Your task to perform on an android device: turn on notifications settings in the gmail app Image 0: 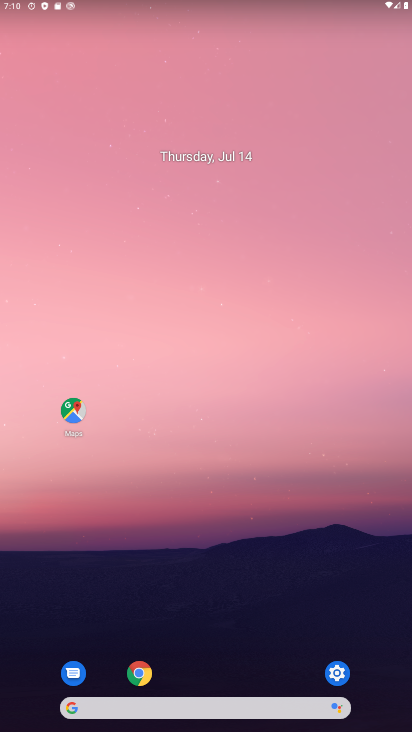
Step 0: press home button
Your task to perform on an android device: turn on notifications settings in the gmail app Image 1: 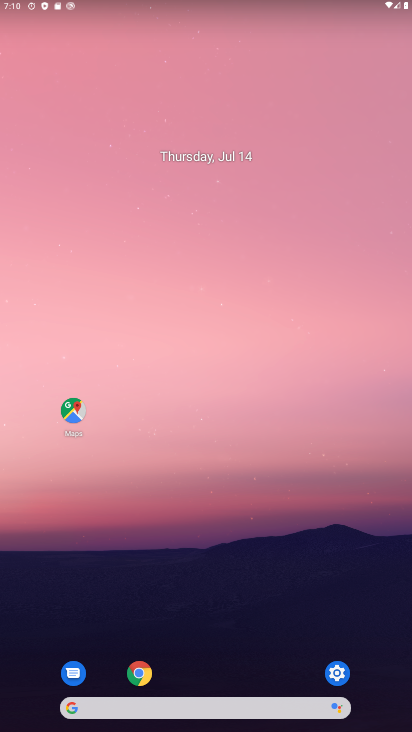
Step 1: drag from (266, 358) to (260, 290)
Your task to perform on an android device: turn on notifications settings in the gmail app Image 2: 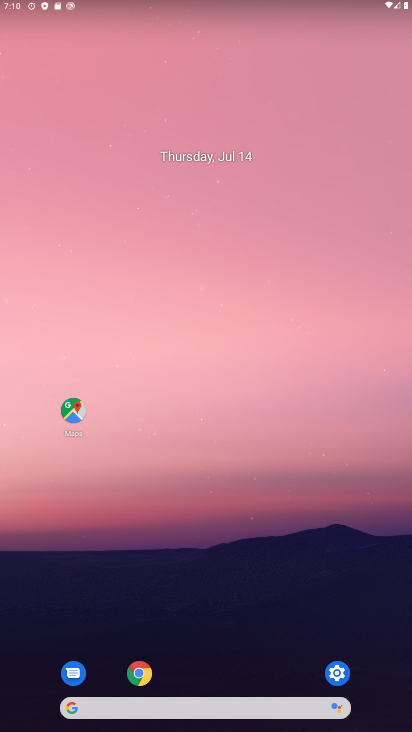
Step 2: drag from (174, 589) to (217, 93)
Your task to perform on an android device: turn on notifications settings in the gmail app Image 3: 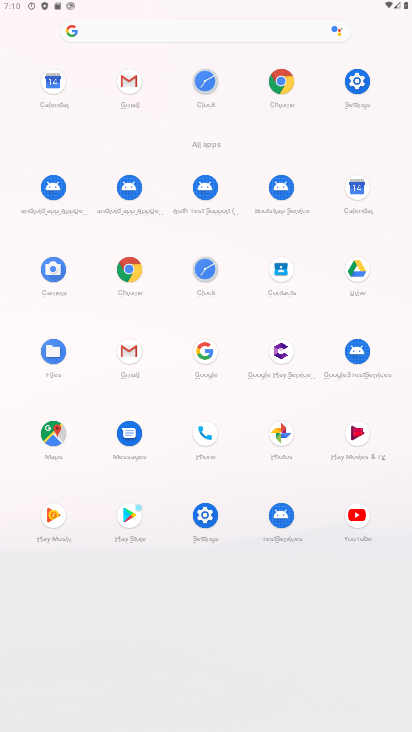
Step 3: drag from (121, 85) to (225, 648)
Your task to perform on an android device: turn on notifications settings in the gmail app Image 4: 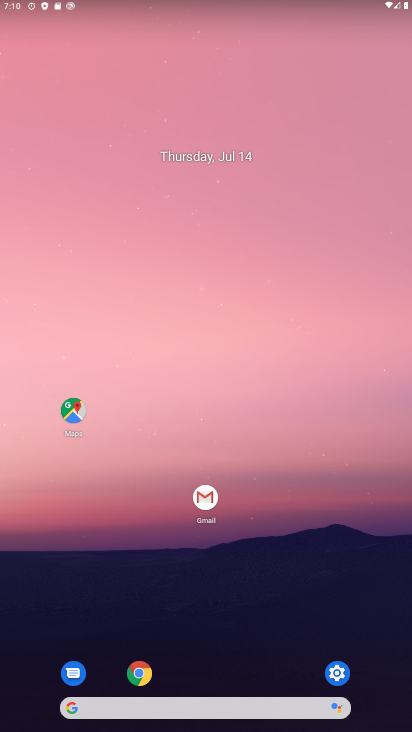
Step 4: click (200, 500)
Your task to perform on an android device: turn on notifications settings in the gmail app Image 5: 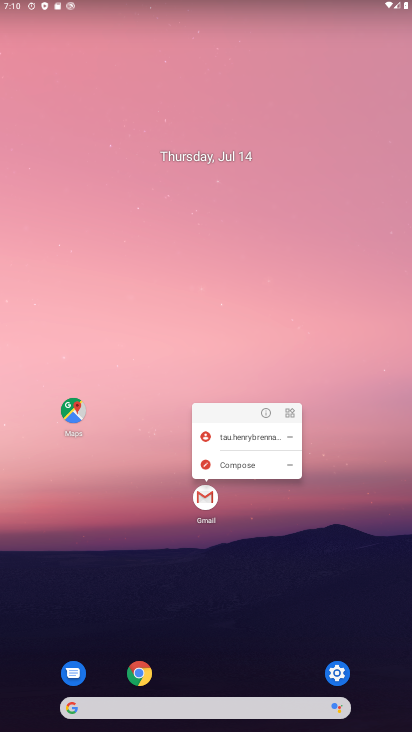
Step 5: click (211, 499)
Your task to perform on an android device: turn on notifications settings in the gmail app Image 6: 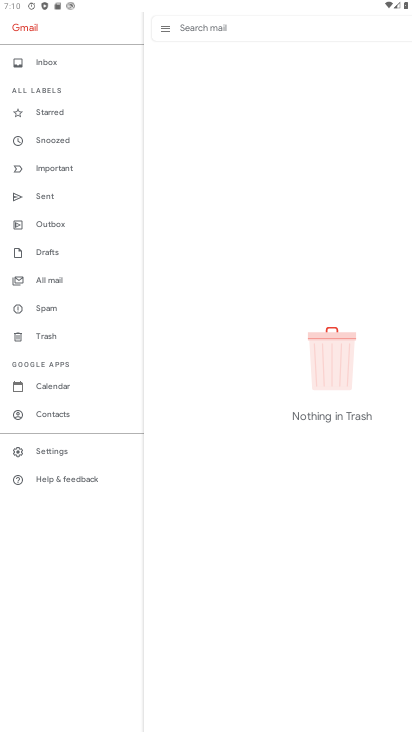
Step 6: click (63, 447)
Your task to perform on an android device: turn on notifications settings in the gmail app Image 7: 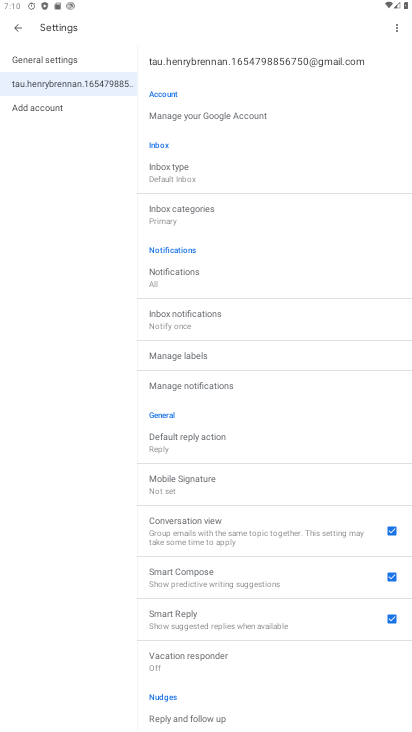
Step 7: click (193, 285)
Your task to perform on an android device: turn on notifications settings in the gmail app Image 8: 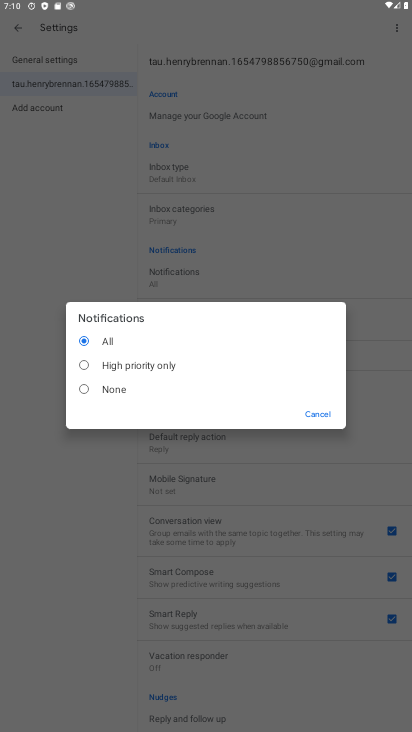
Step 8: click (127, 388)
Your task to perform on an android device: turn on notifications settings in the gmail app Image 9: 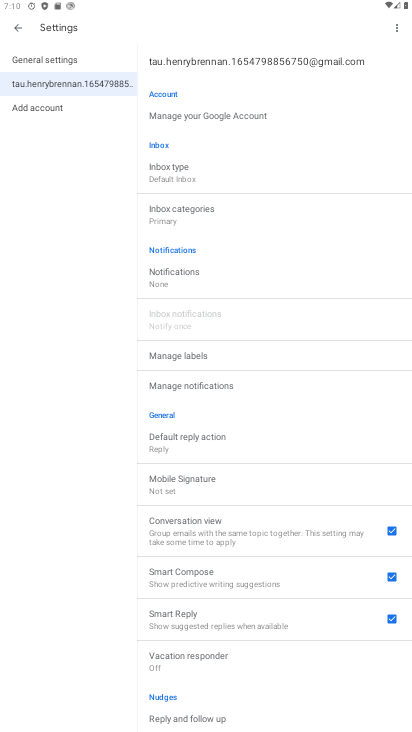
Step 9: click (199, 270)
Your task to perform on an android device: turn on notifications settings in the gmail app Image 10: 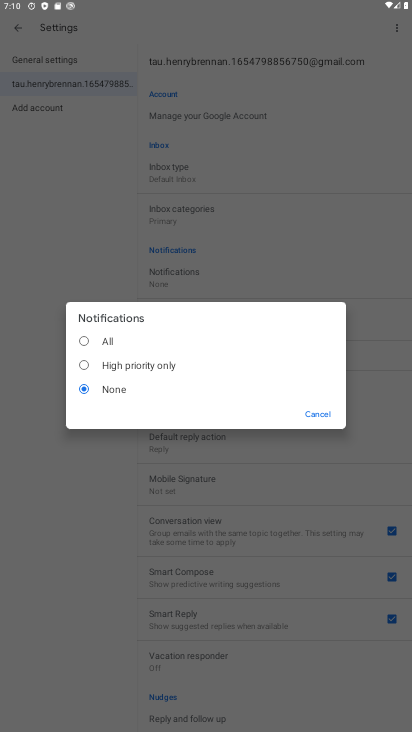
Step 10: click (83, 338)
Your task to perform on an android device: turn on notifications settings in the gmail app Image 11: 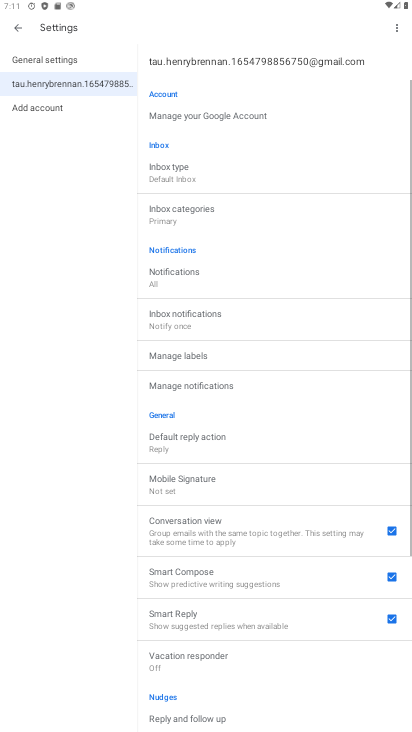
Step 11: task complete